Your task to perform on an android device: Open settings Image 0: 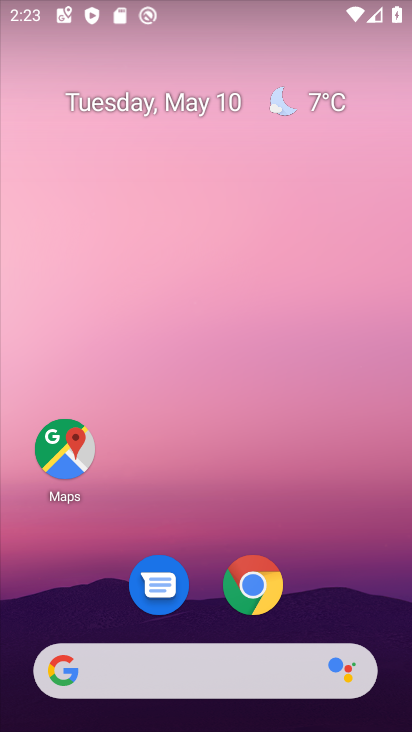
Step 0: drag from (213, 531) to (214, 39)
Your task to perform on an android device: Open settings Image 1: 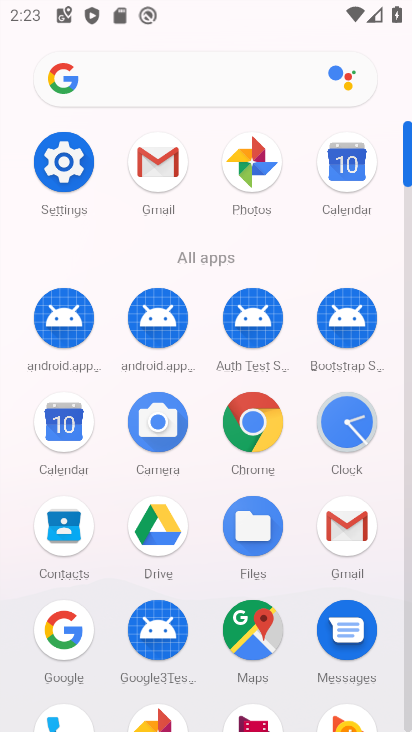
Step 1: click (67, 168)
Your task to perform on an android device: Open settings Image 2: 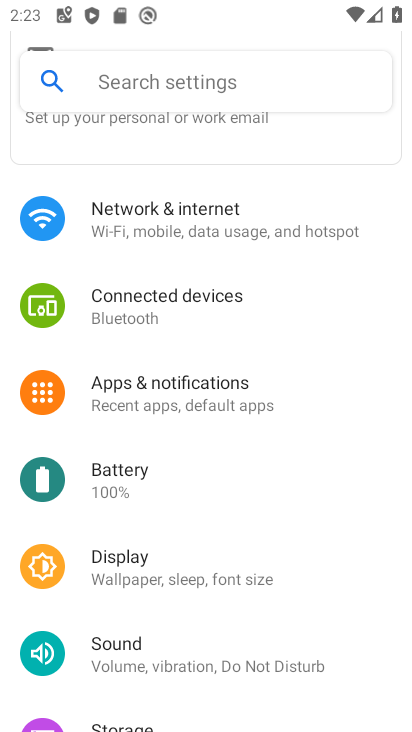
Step 2: task complete